Your task to perform on an android device: check the backup settings in the google photos Image 0: 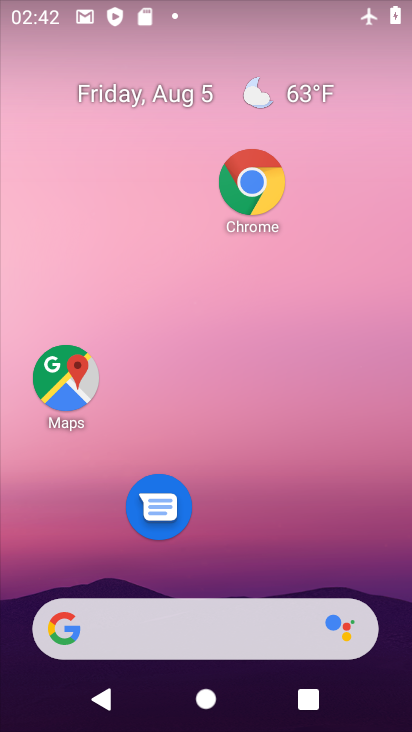
Step 0: drag from (218, 84) to (145, 26)
Your task to perform on an android device: check the backup settings in the google photos Image 1: 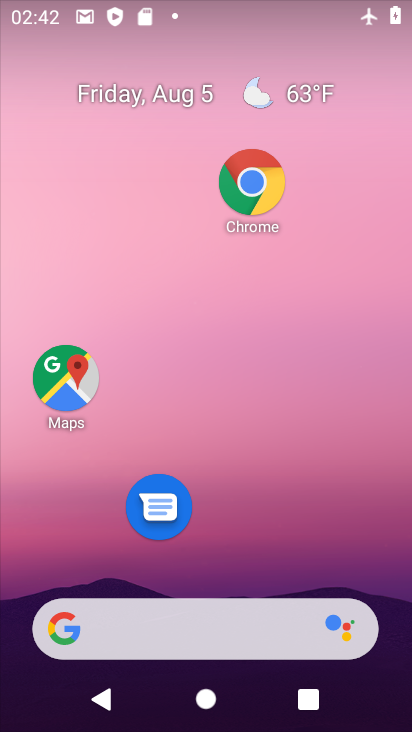
Step 1: drag from (223, 573) to (137, 10)
Your task to perform on an android device: check the backup settings in the google photos Image 2: 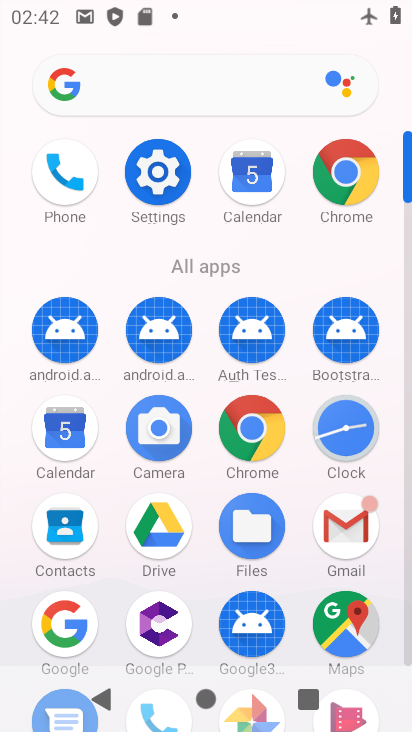
Step 2: drag from (259, 383) to (261, 335)
Your task to perform on an android device: check the backup settings in the google photos Image 3: 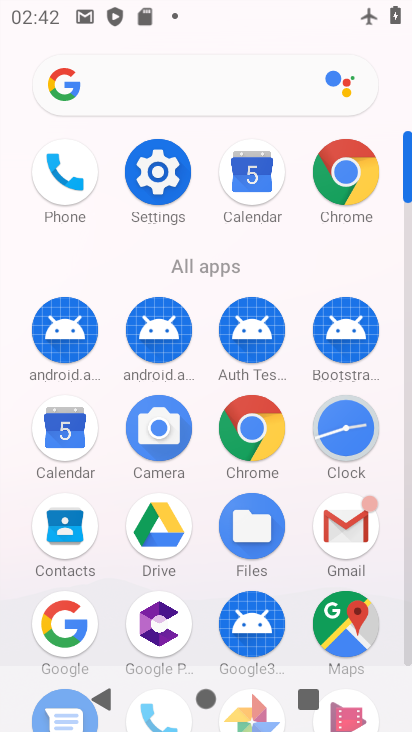
Step 3: drag from (215, 603) to (205, 254)
Your task to perform on an android device: check the backup settings in the google photos Image 4: 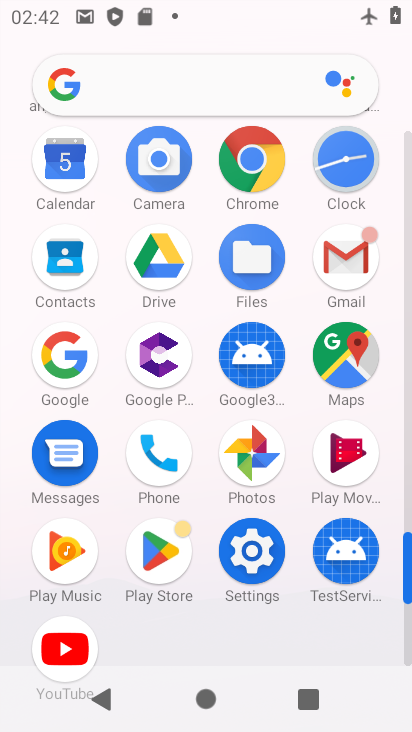
Step 4: click (247, 472)
Your task to perform on an android device: check the backup settings in the google photos Image 5: 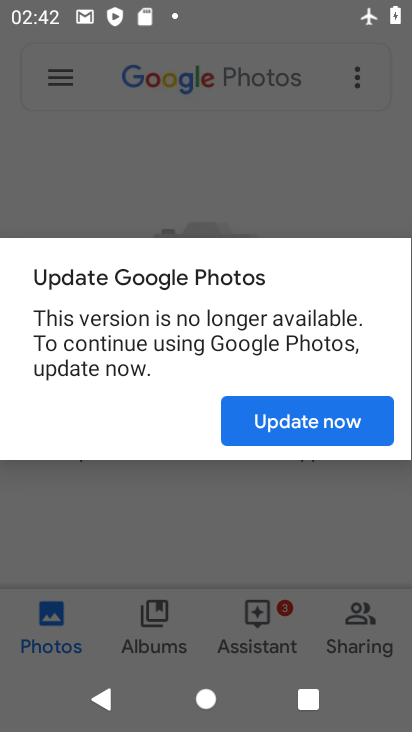
Step 5: click (304, 425)
Your task to perform on an android device: check the backup settings in the google photos Image 6: 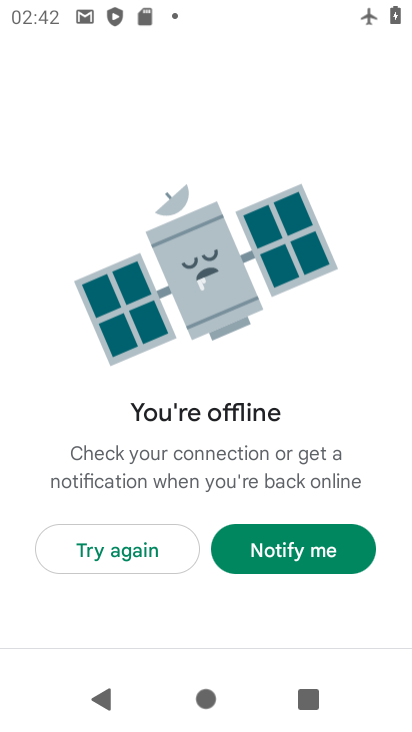
Step 6: press back button
Your task to perform on an android device: check the backup settings in the google photos Image 7: 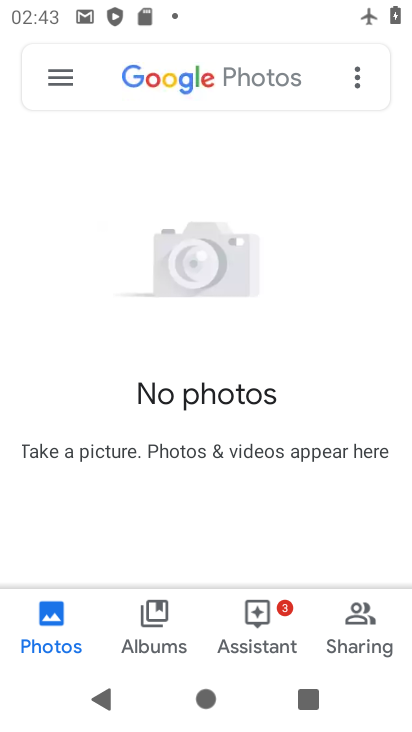
Step 7: click (49, 81)
Your task to perform on an android device: check the backup settings in the google photos Image 8: 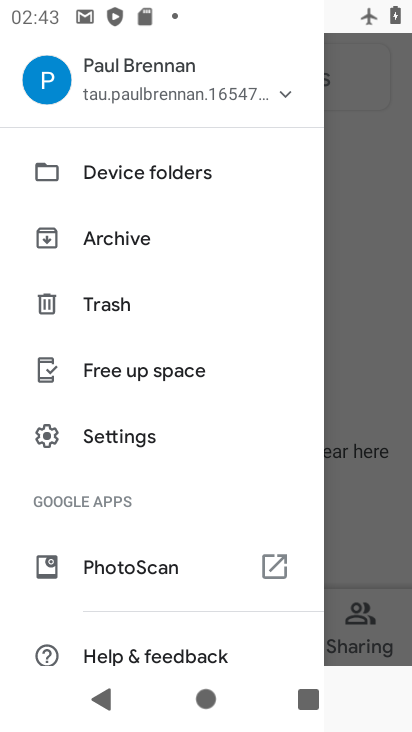
Step 8: drag from (171, 547) to (171, 320)
Your task to perform on an android device: check the backup settings in the google photos Image 9: 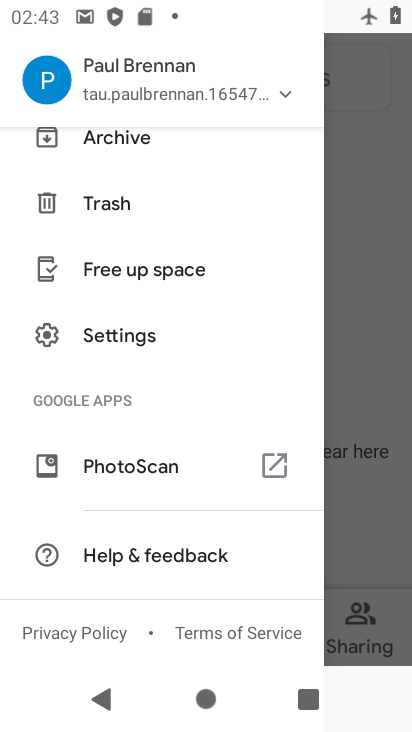
Step 9: click (110, 331)
Your task to perform on an android device: check the backup settings in the google photos Image 10: 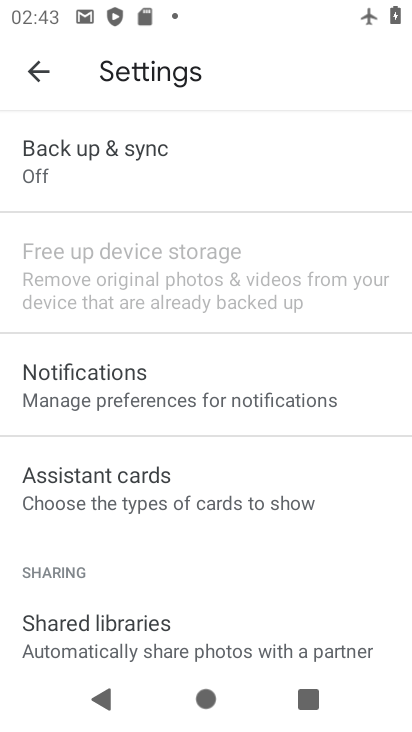
Step 10: click (112, 170)
Your task to perform on an android device: check the backup settings in the google photos Image 11: 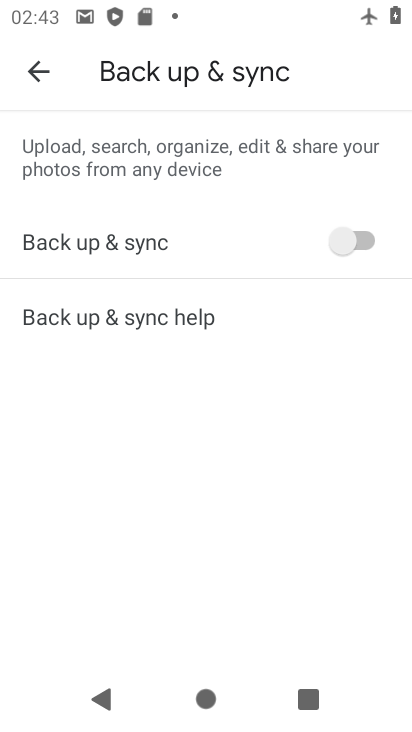
Step 11: click (374, 240)
Your task to perform on an android device: check the backup settings in the google photos Image 12: 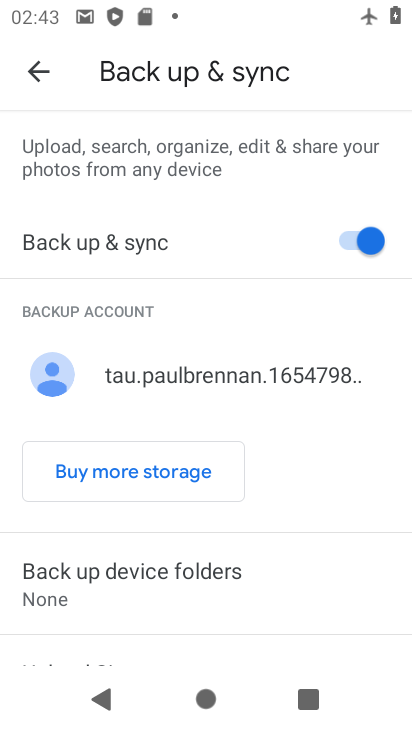
Step 12: task complete